Your task to perform on an android device: Go to Yahoo.com Image 0: 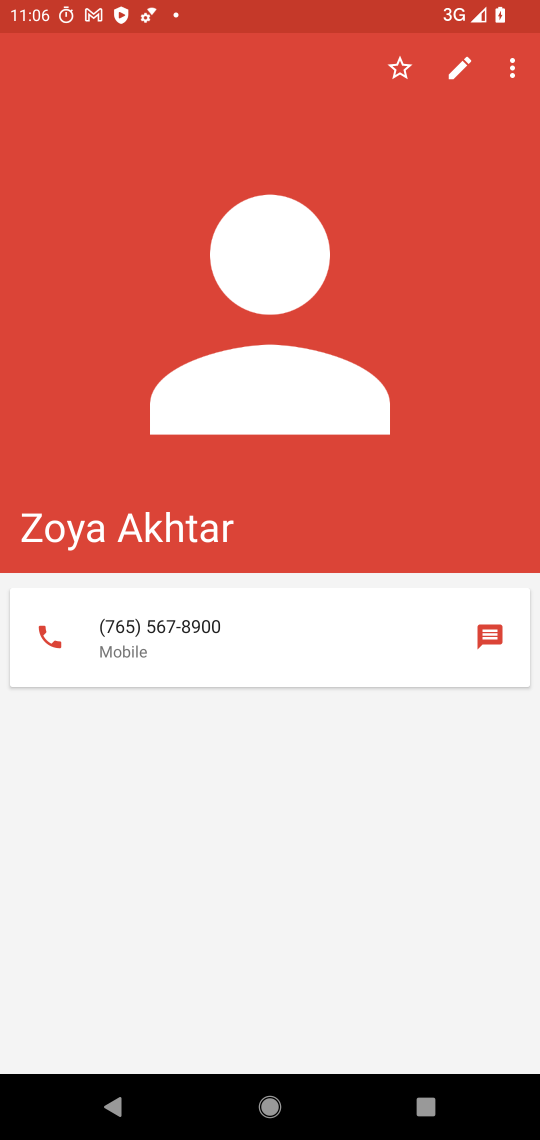
Step 0: press home button
Your task to perform on an android device: Go to Yahoo.com Image 1: 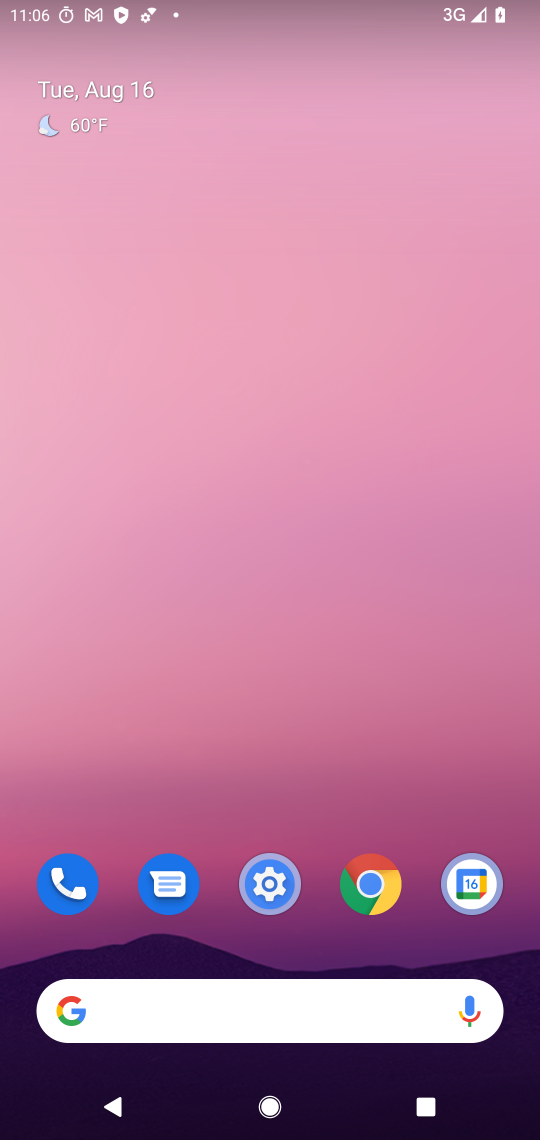
Step 1: click (374, 887)
Your task to perform on an android device: Go to Yahoo.com Image 2: 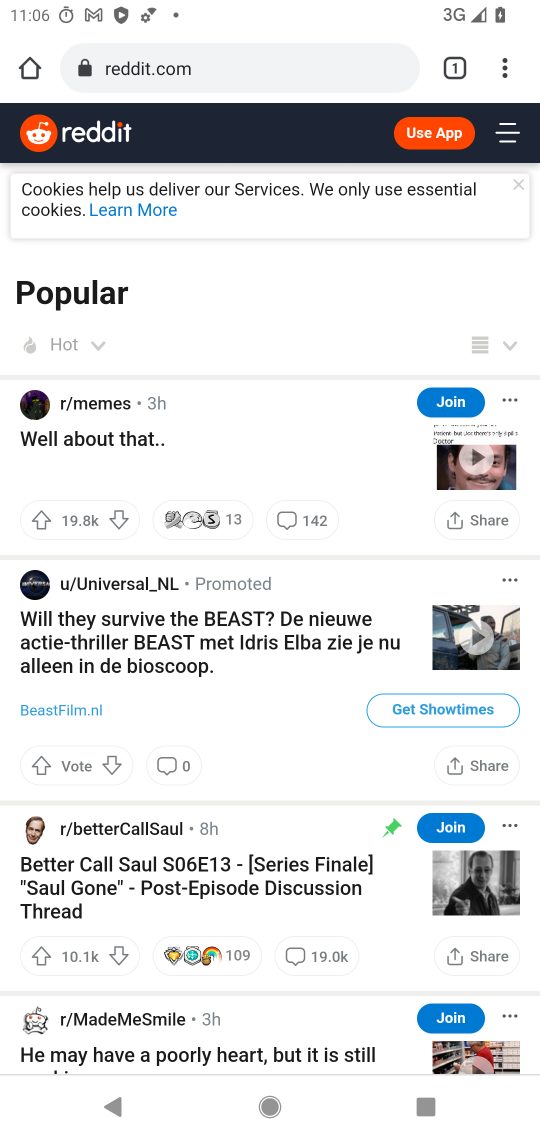
Step 2: click (151, 66)
Your task to perform on an android device: Go to Yahoo.com Image 3: 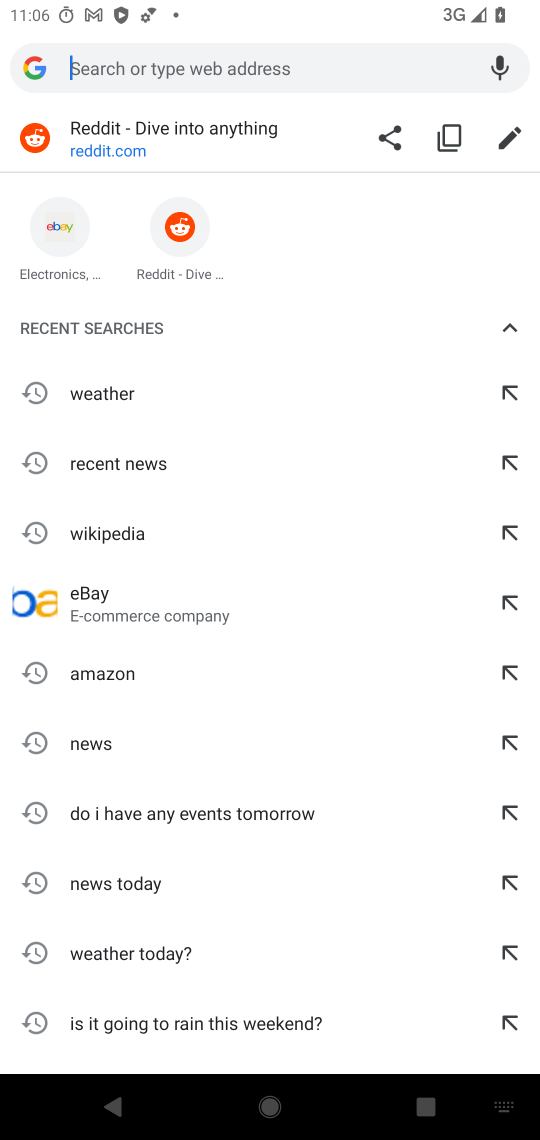
Step 3: type "www.yahoo.com"
Your task to perform on an android device: Go to Yahoo.com Image 4: 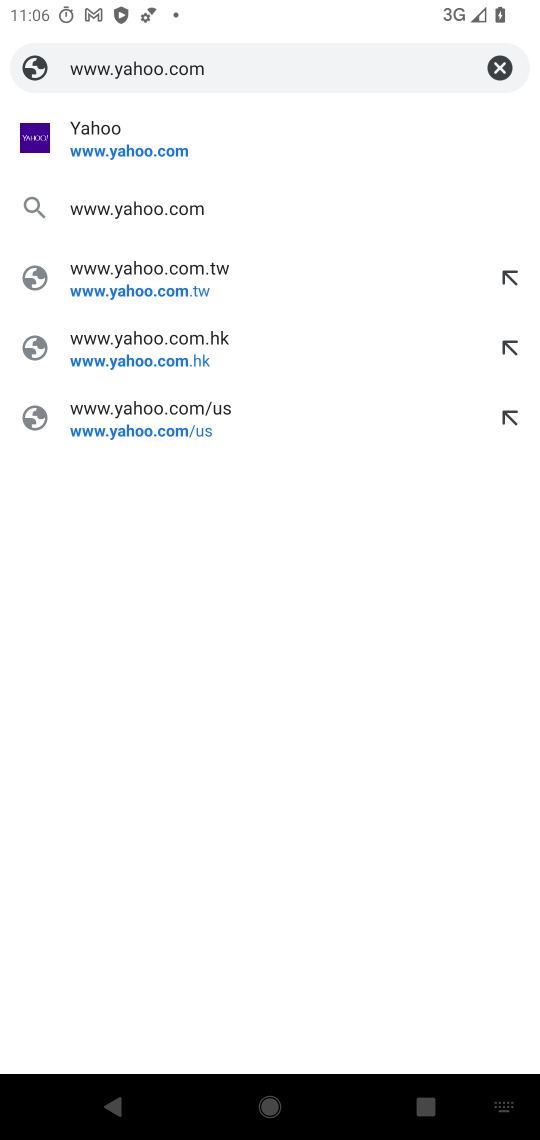
Step 4: click (69, 146)
Your task to perform on an android device: Go to Yahoo.com Image 5: 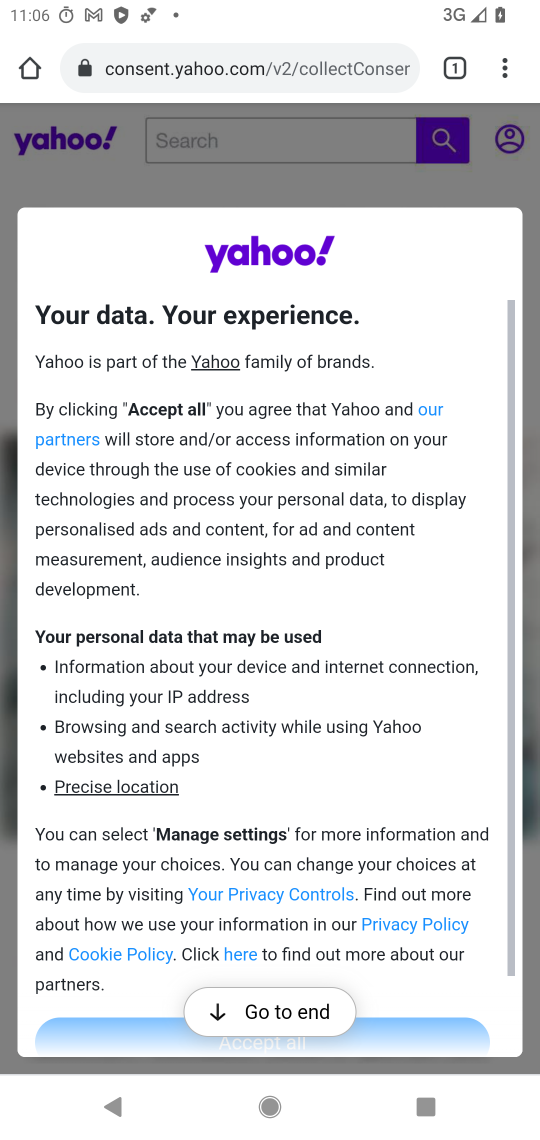
Step 5: task complete